Your task to perform on an android device: move a message to another label in the gmail app Image 0: 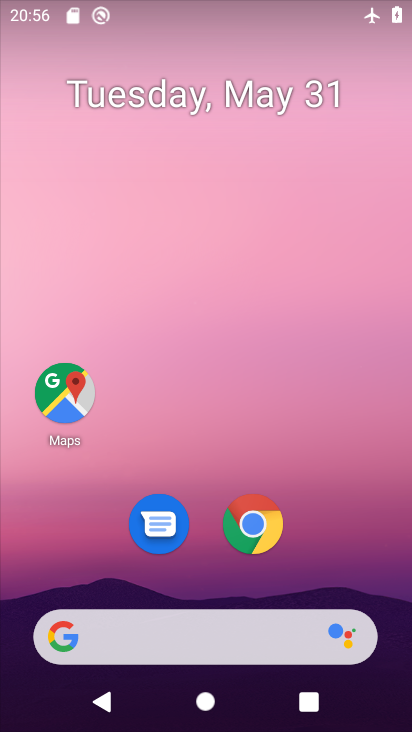
Step 0: drag from (219, 449) to (265, 0)
Your task to perform on an android device: move a message to another label in the gmail app Image 1: 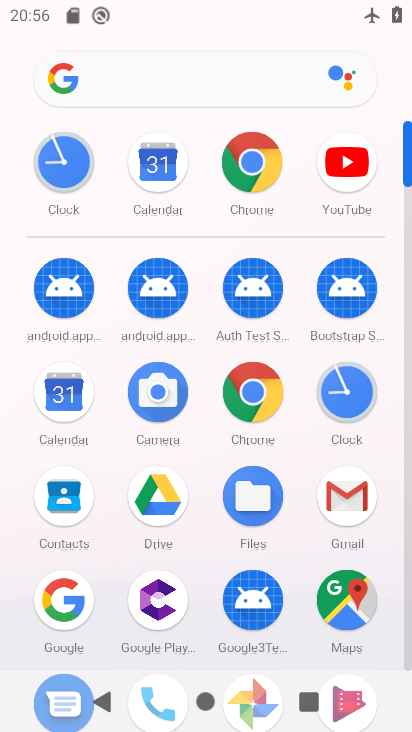
Step 1: click (336, 494)
Your task to perform on an android device: move a message to another label in the gmail app Image 2: 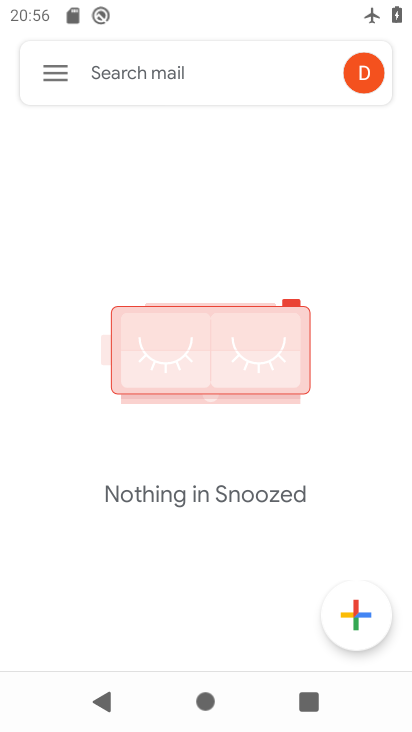
Step 2: click (61, 67)
Your task to perform on an android device: move a message to another label in the gmail app Image 3: 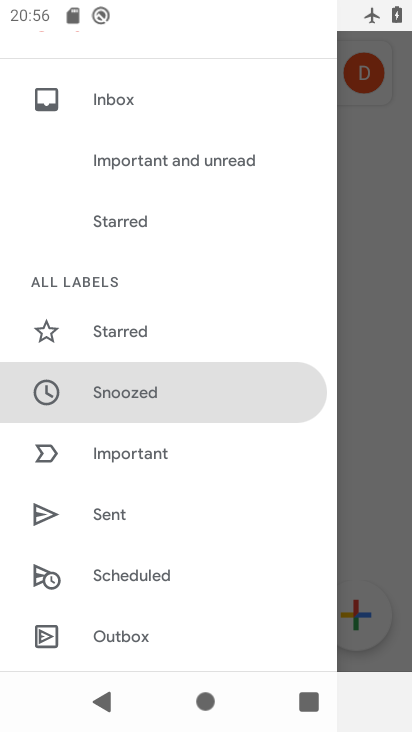
Step 3: drag from (194, 589) to (248, 115)
Your task to perform on an android device: move a message to another label in the gmail app Image 4: 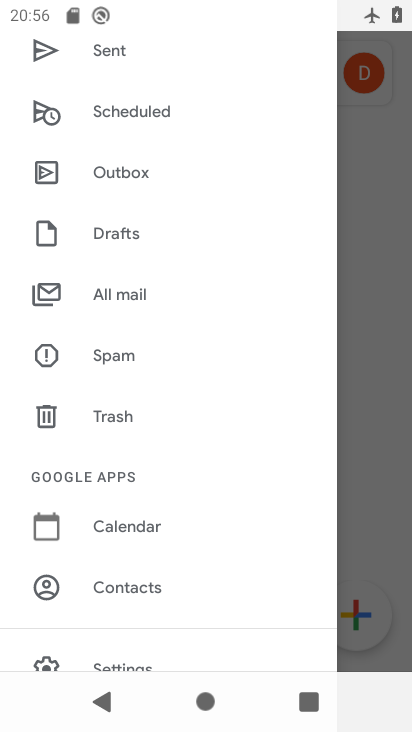
Step 4: click (153, 291)
Your task to perform on an android device: move a message to another label in the gmail app Image 5: 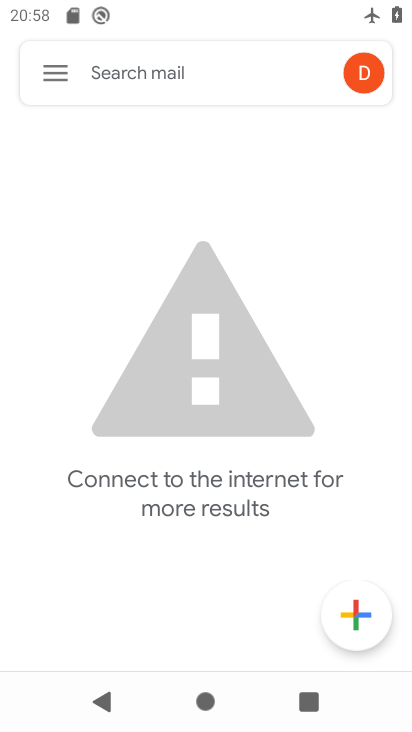
Step 5: task complete